Your task to perform on an android device: allow notifications from all sites in the chrome app Image 0: 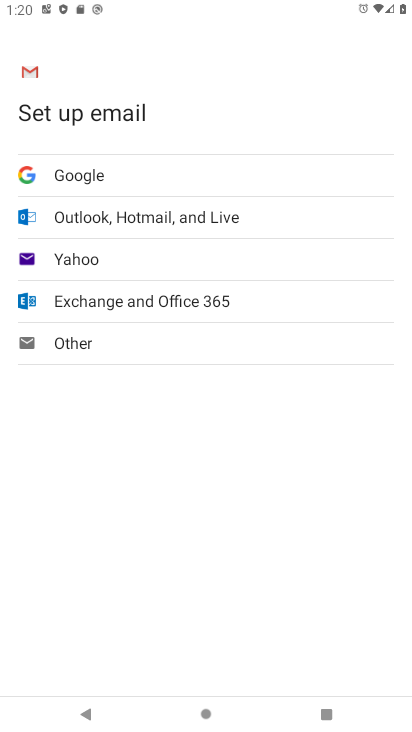
Step 0: press home button
Your task to perform on an android device: allow notifications from all sites in the chrome app Image 1: 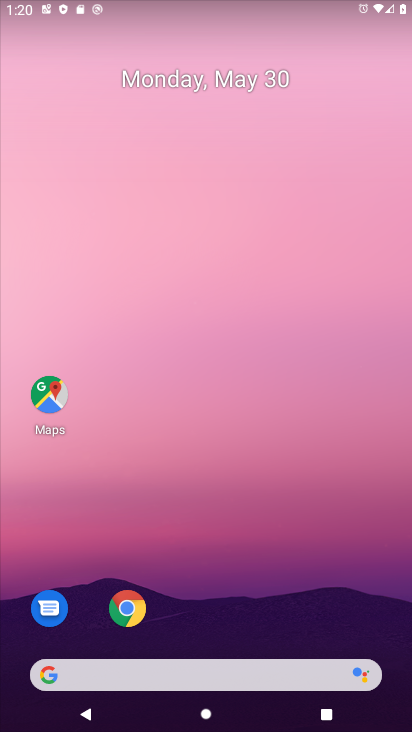
Step 1: click (135, 597)
Your task to perform on an android device: allow notifications from all sites in the chrome app Image 2: 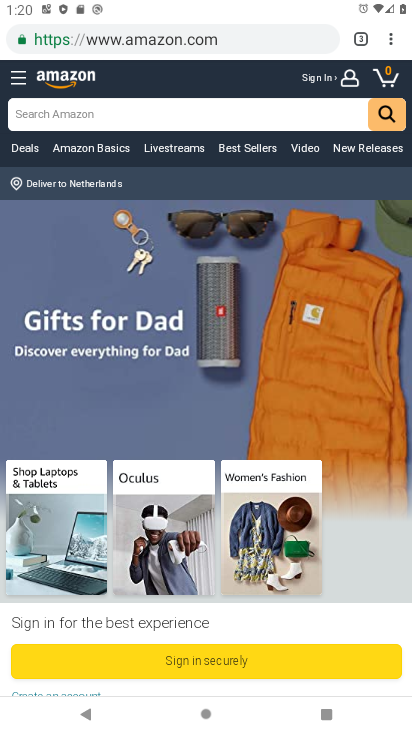
Step 2: click (392, 30)
Your task to perform on an android device: allow notifications from all sites in the chrome app Image 3: 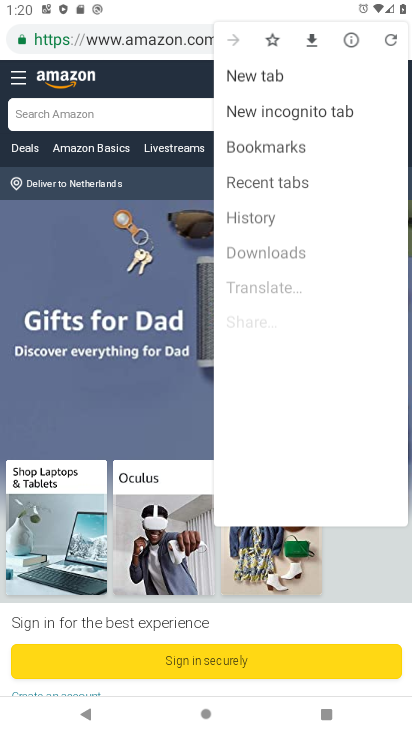
Step 3: click (392, 30)
Your task to perform on an android device: allow notifications from all sites in the chrome app Image 4: 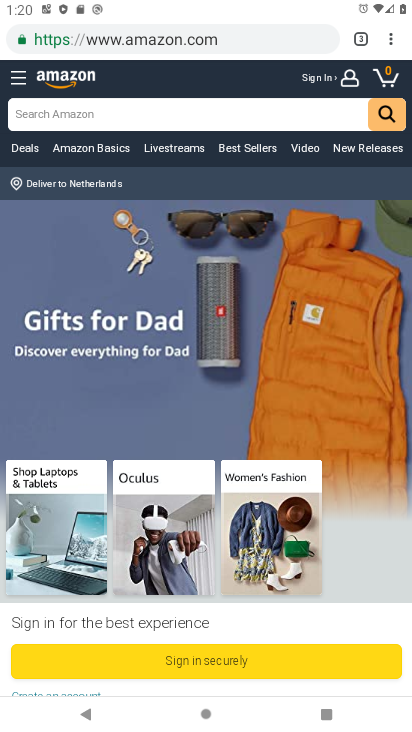
Step 4: click (398, 39)
Your task to perform on an android device: allow notifications from all sites in the chrome app Image 5: 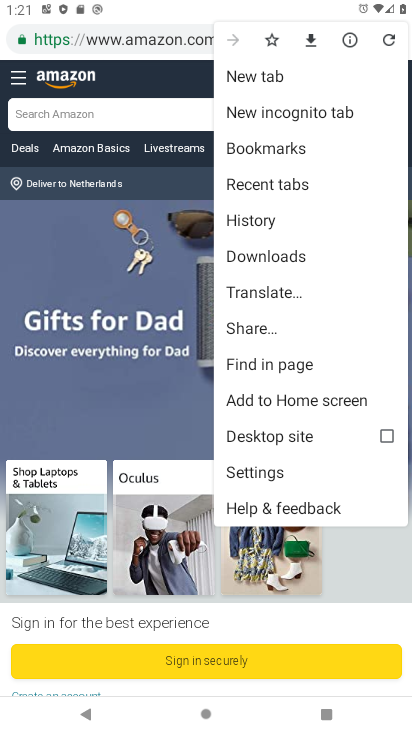
Step 5: click (279, 477)
Your task to perform on an android device: allow notifications from all sites in the chrome app Image 6: 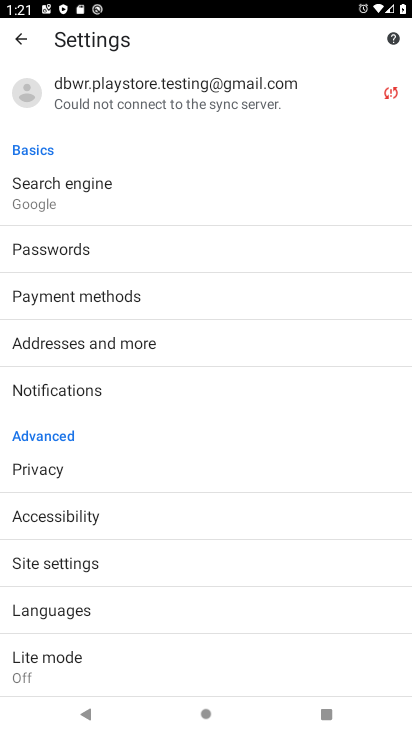
Step 6: click (75, 564)
Your task to perform on an android device: allow notifications from all sites in the chrome app Image 7: 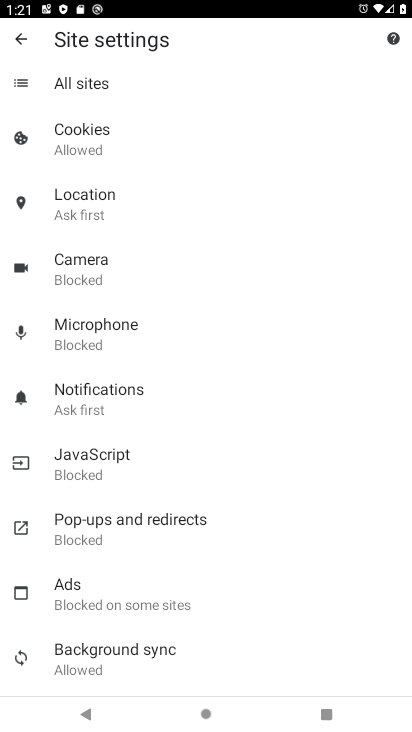
Step 7: click (24, 30)
Your task to perform on an android device: allow notifications from all sites in the chrome app Image 8: 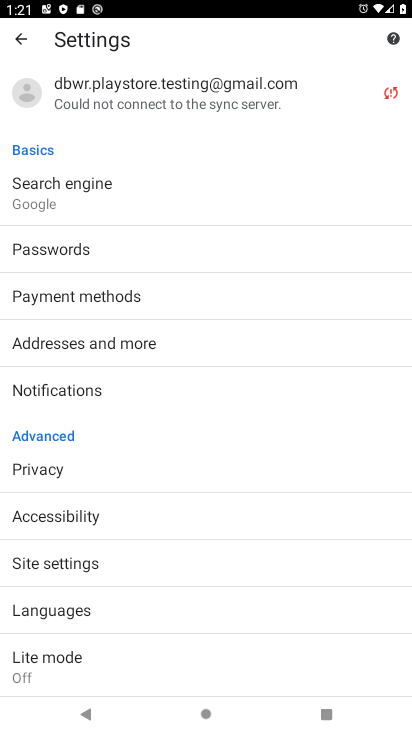
Step 8: click (87, 387)
Your task to perform on an android device: allow notifications from all sites in the chrome app Image 9: 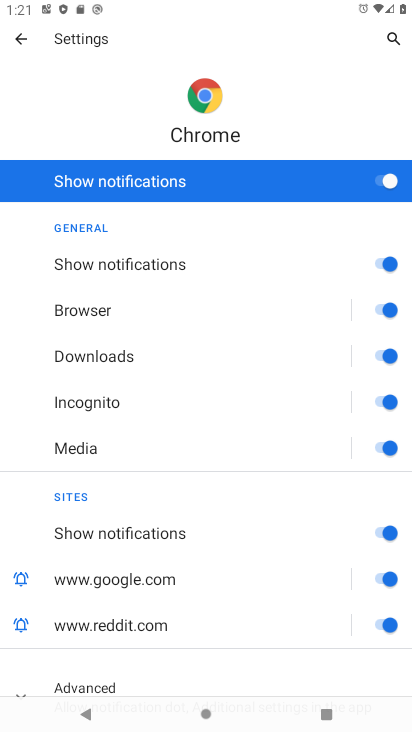
Step 9: task complete